Your task to perform on an android device: Open Chrome and go to settings Image 0: 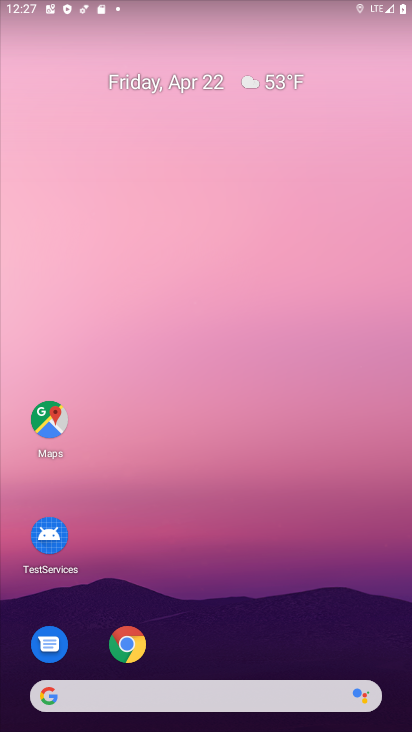
Step 0: drag from (251, 564) to (256, 0)
Your task to perform on an android device: Open Chrome and go to settings Image 1: 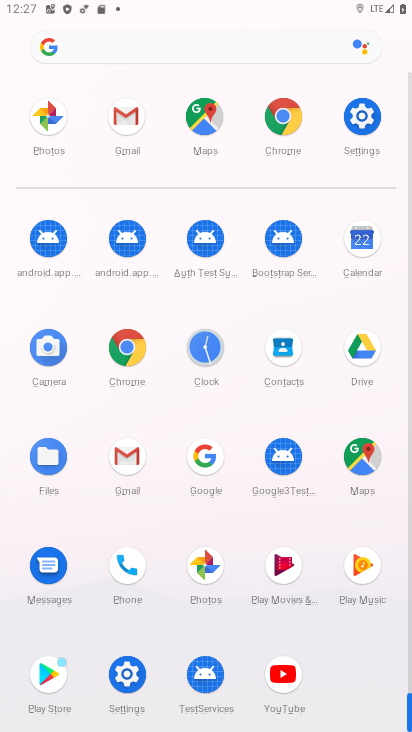
Step 1: click (286, 120)
Your task to perform on an android device: Open Chrome and go to settings Image 2: 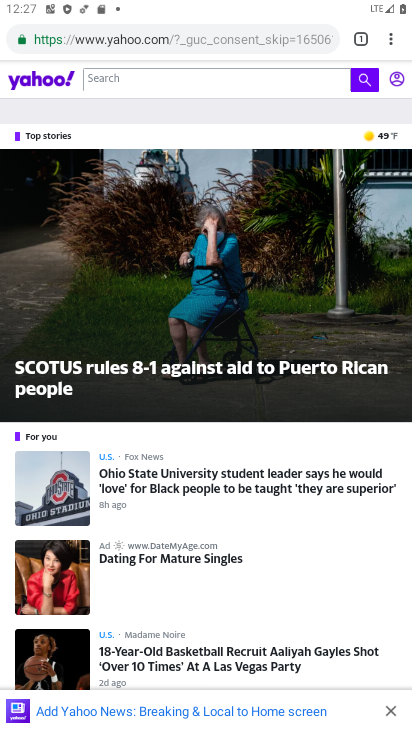
Step 2: task complete